Your task to perform on an android device: Go to Wikipedia Image 0: 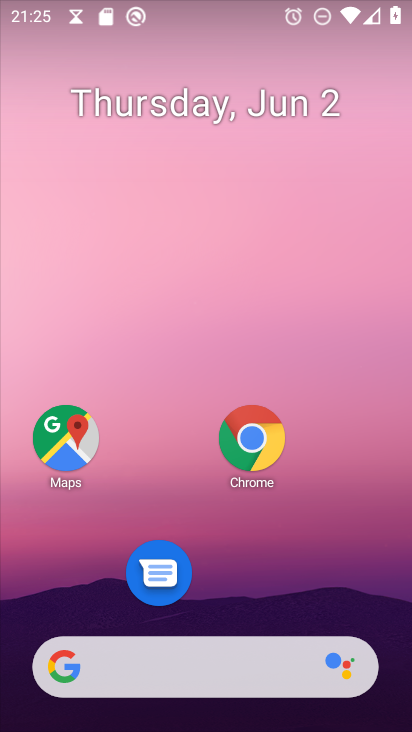
Step 0: press home button
Your task to perform on an android device: Go to Wikipedia Image 1: 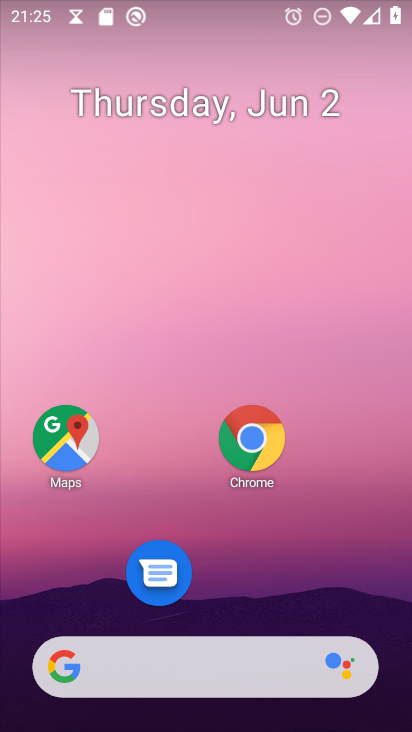
Step 1: click (269, 447)
Your task to perform on an android device: Go to Wikipedia Image 2: 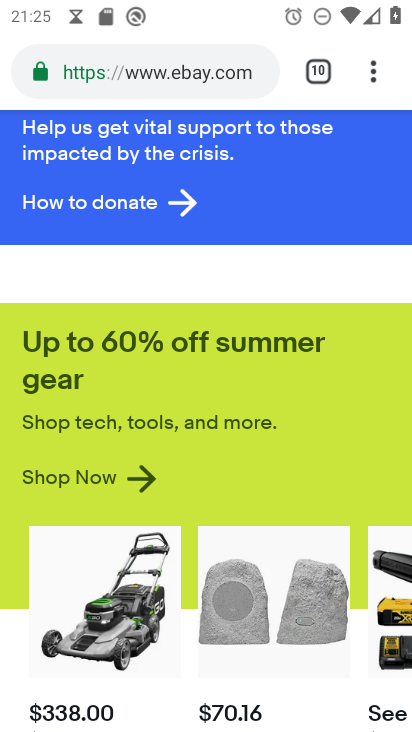
Step 2: drag from (374, 71) to (159, 139)
Your task to perform on an android device: Go to Wikipedia Image 3: 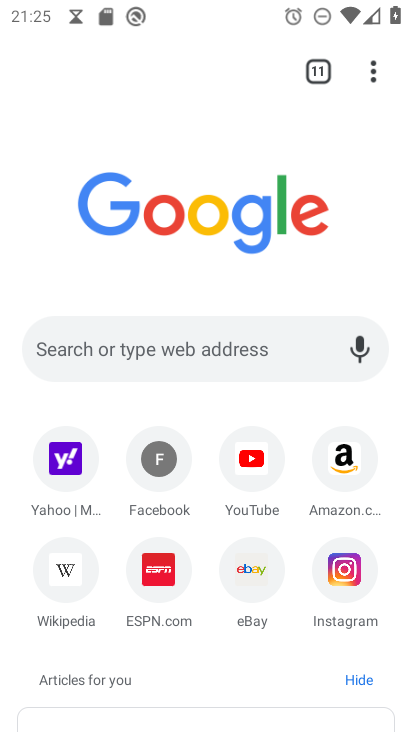
Step 3: click (47, 579)
Your task to perform on an android device: Go to Wikipedia Image 4: 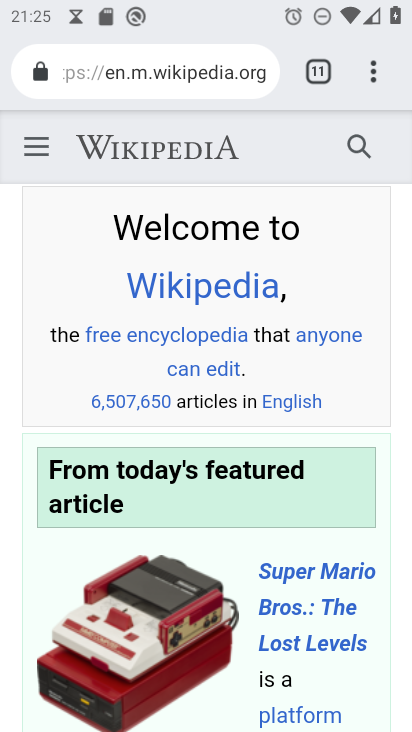
Step 4: task complete